Your task to perform on an android device: Check the weather Image 0: 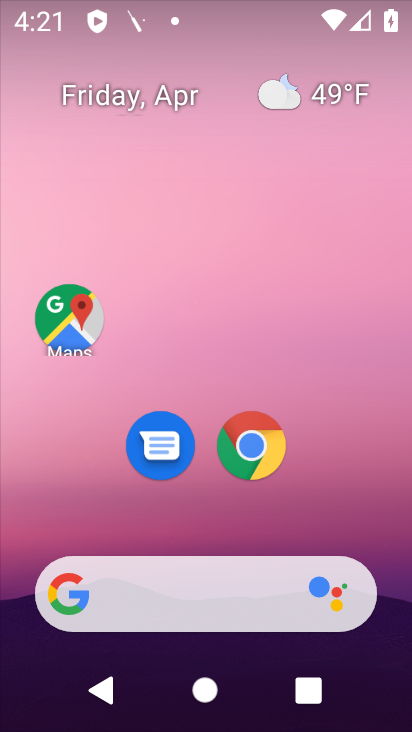
Step 0: drag from (331, 388) to (377, 93)
Your task to perform on an android device: Check the weather Image 1: 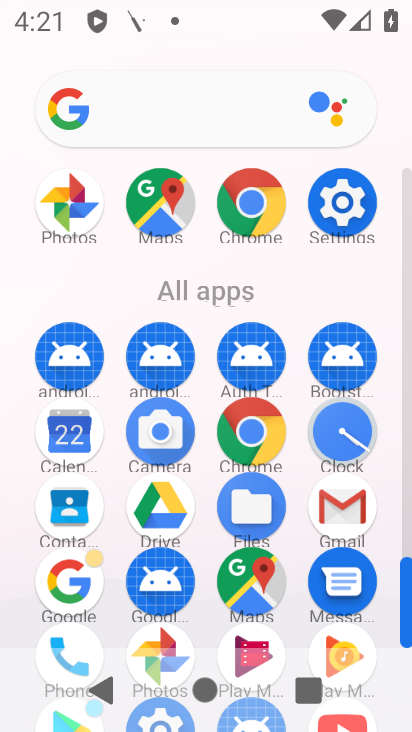
Step 1: click (250, 437)
Your task to perform on an android device: Check the weather Image 2: 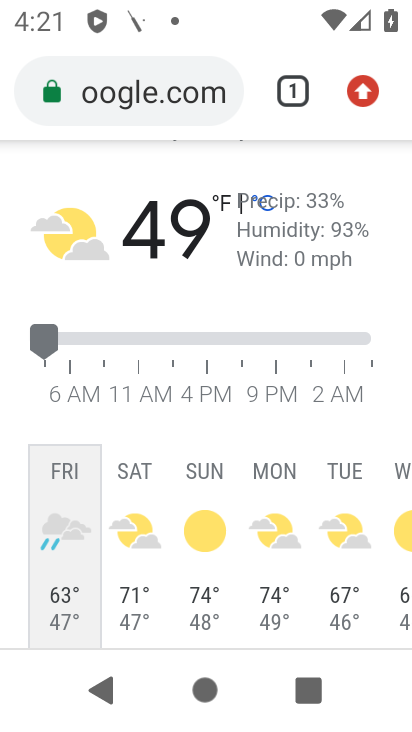
Step 2: task complete